Your task to perform on an android device: Go to notification settings Image 0: 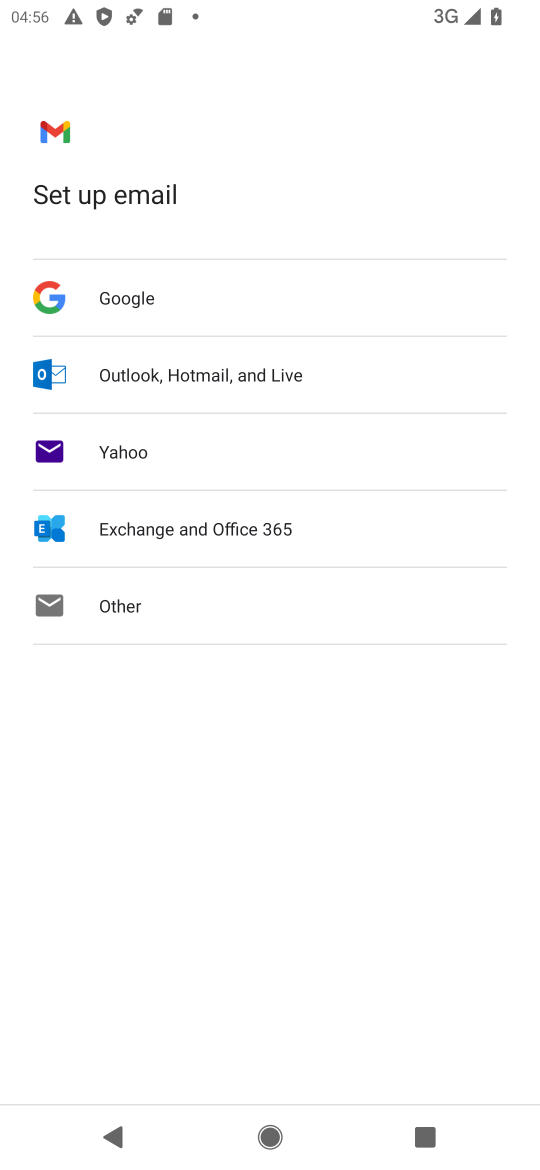
Step 0: press home button
Your task to perform on an android device: Go to notification settings Image 1: 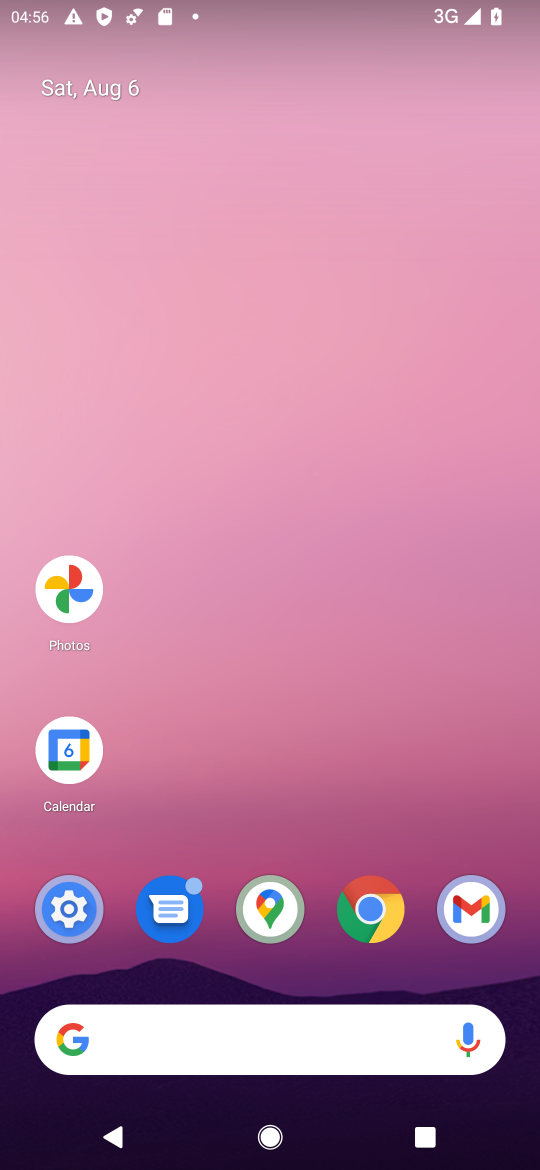
Step 1: drag from (228, 623) to (166, 225)
Your task to perform on an android device: Go to notification settings Image 2: 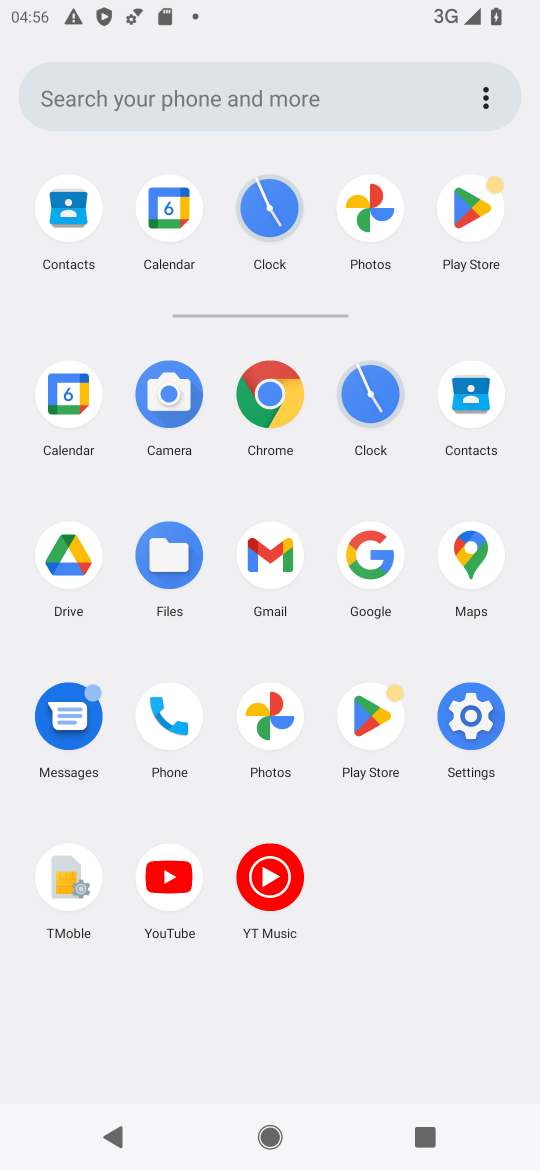
Step 2: click (471, 711)
Your task to perform on an android device: Go to notification settings Image 3: 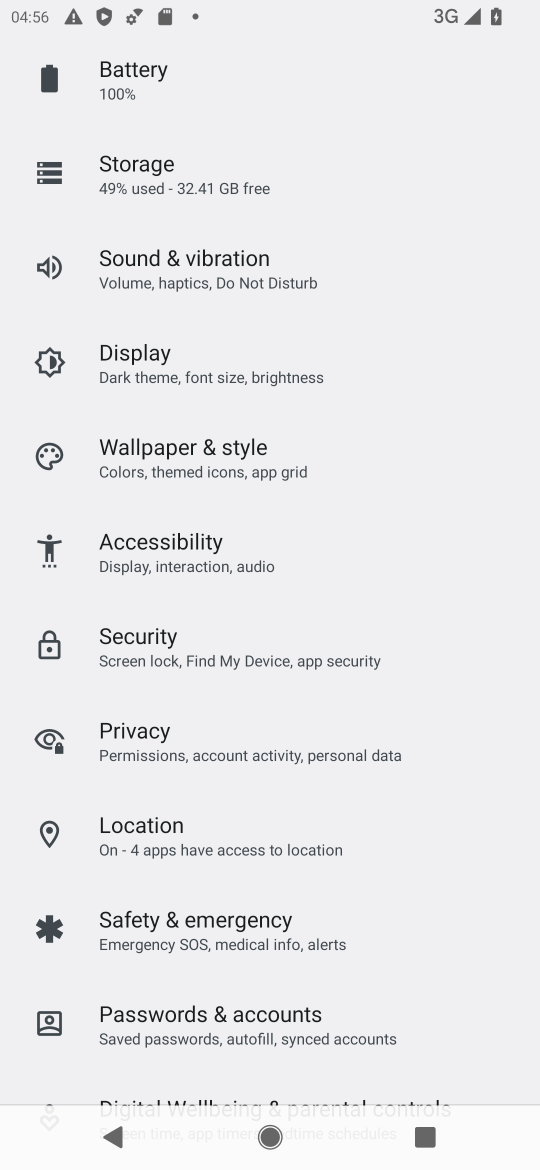
Step 3: drag from (309, 169) to (279, 545)
Your task to perform on an android device: Go to notification settings Image 4: 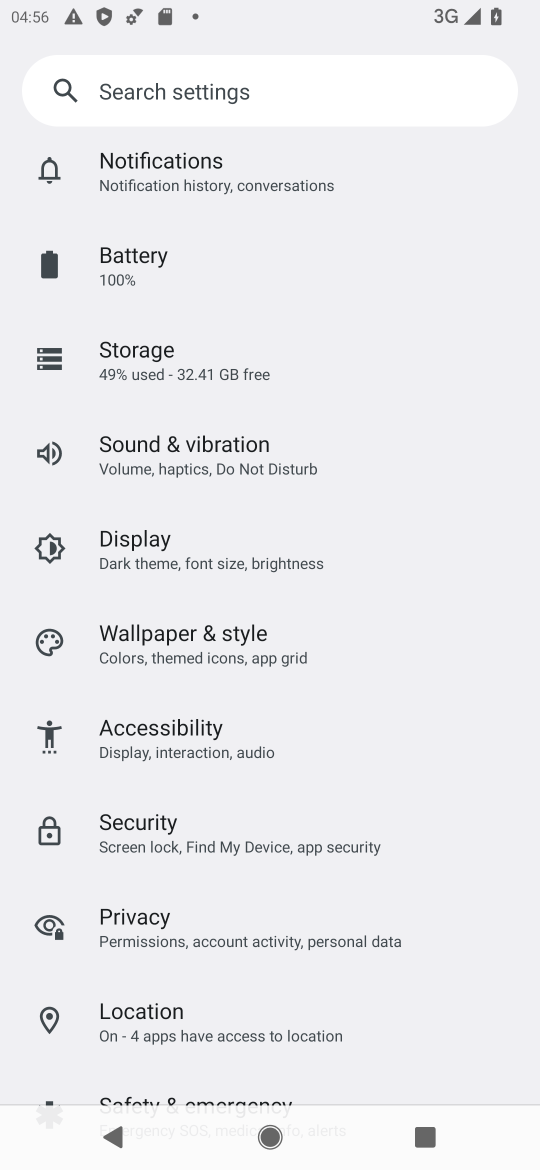
Step 4: click (178, 167)
Your task to perform on an android device: Go to notification settings Image 5: 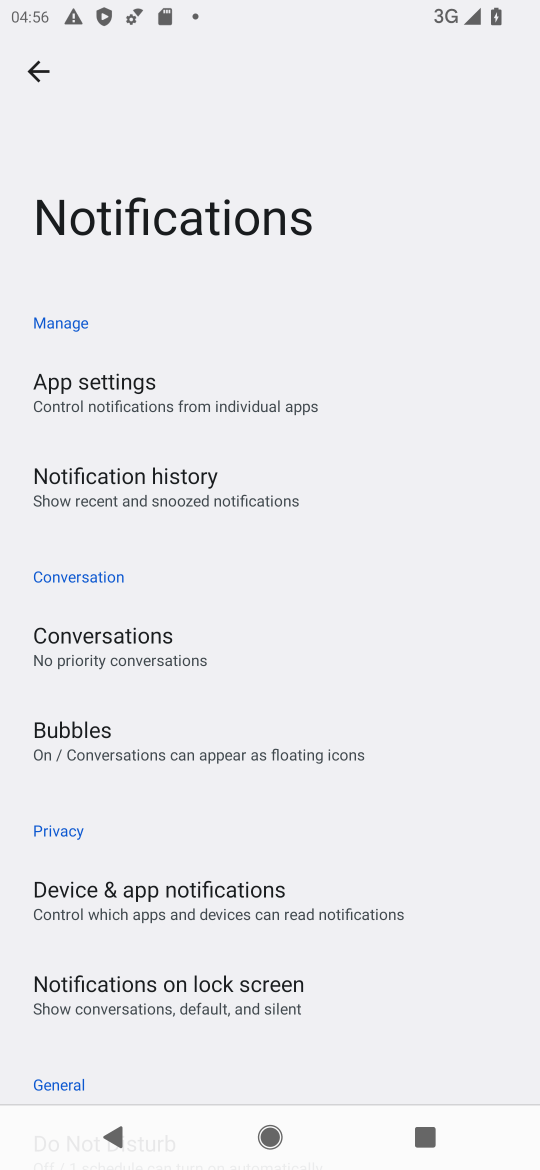
Step 5: task complete